Your task to perform on an android device: turn on notifications settings in the gmail app Image 0: 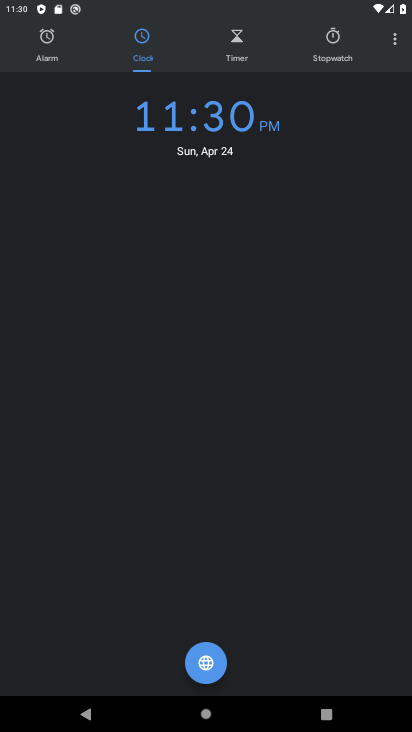
Step 0: press home button
Your task to perform on an android device: turn on notifications settings in the gmail app Image 1: 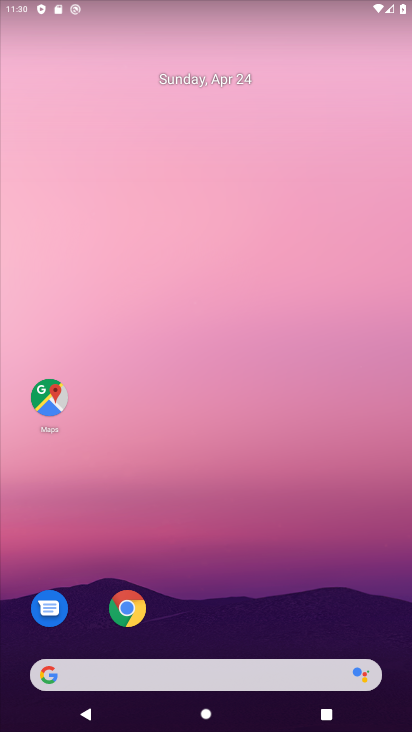
Step 1: drag from (228, 714) to (217, 96)
Your task to perform on an android device: turn on notifications settings in the gmail app Image 2: 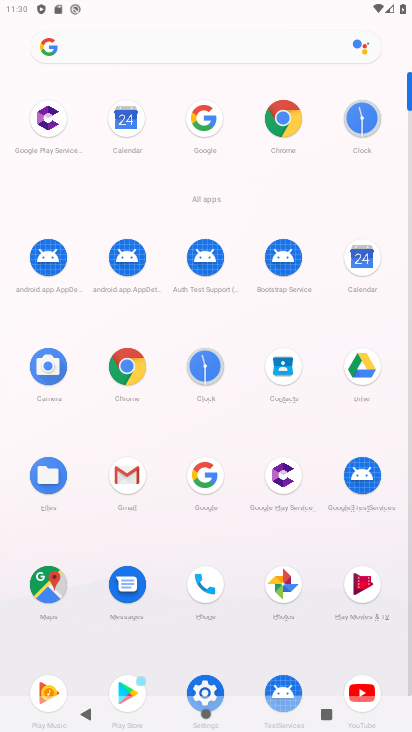
Step 2: click (127, 476)
Your task to perform on an android device: turn on notifications settings in the gmail app Image 3: 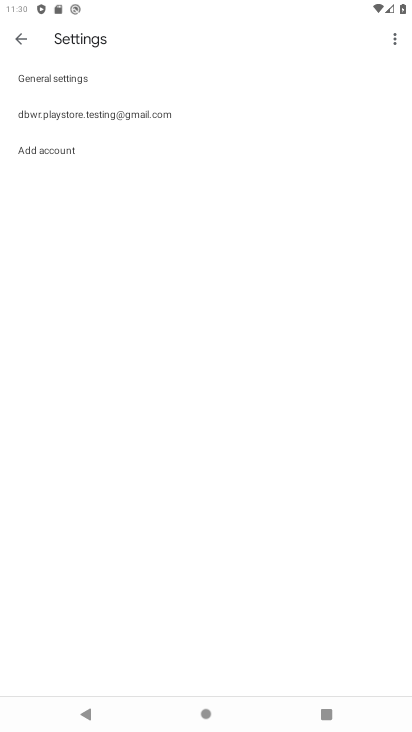
Step 3: click (73, 114)
Your task to perform on an android device: turn on notifications settings in the gmail app Image 4: 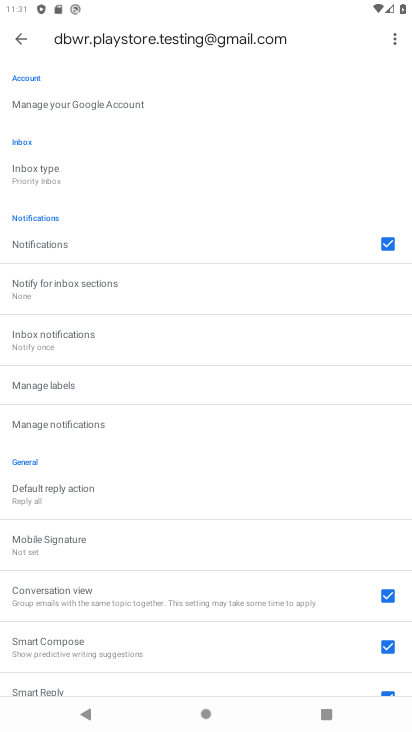
Step 4: task complete